Your task to perform on an android device: Open calendar and show me the second week of next month Image 0: 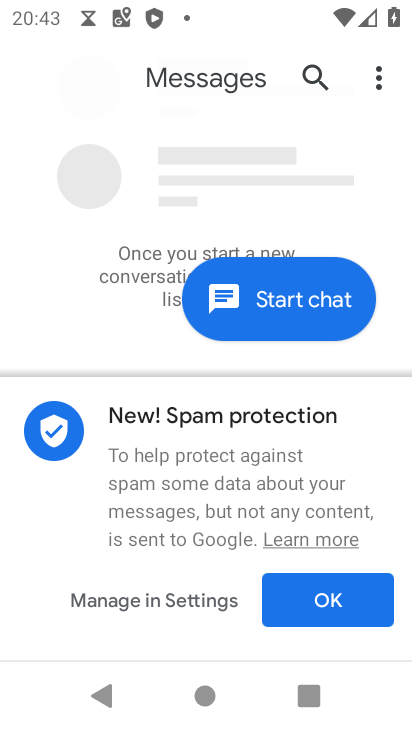
Step 0: press home button
Your task to perform on an android device: Open calendar and show me the second week of next month Image 1: 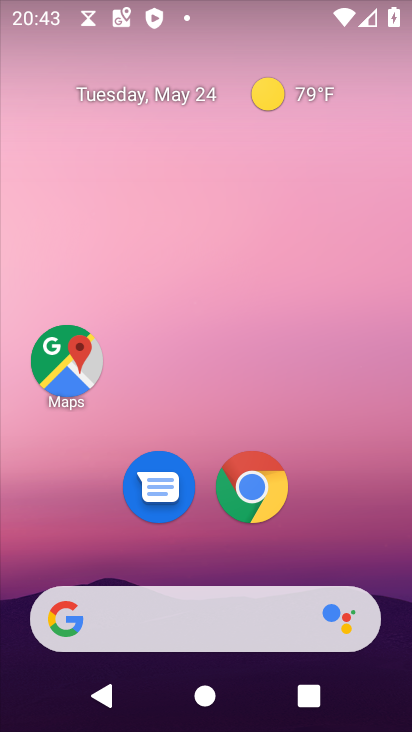
Step 1: drag from (59, 464) to (241, 133)
Your task to perform on an android device: Open calendar and show me the second week of next month Image 2: 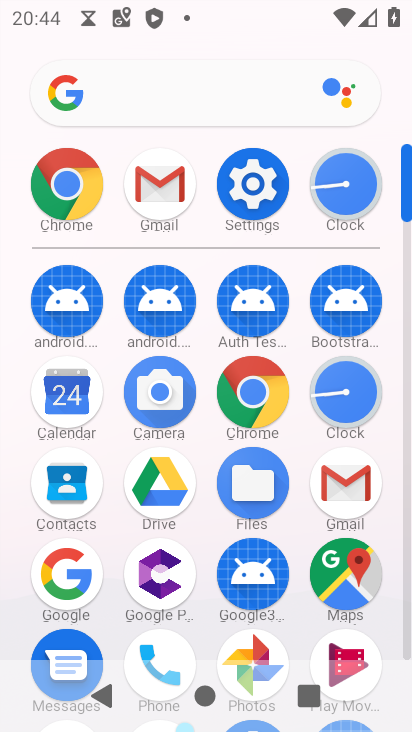
Step 2: click (56, 399)
Your task to perform on an android device: Open calendar and show me the second week of next month Image 3: 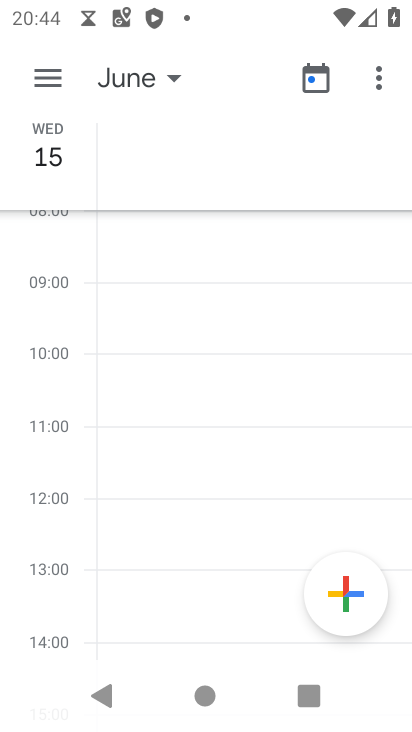
Step 3: click (114, 85)
Your task to perform on an android device: Open calendar and show me the second week of next month Image 4: 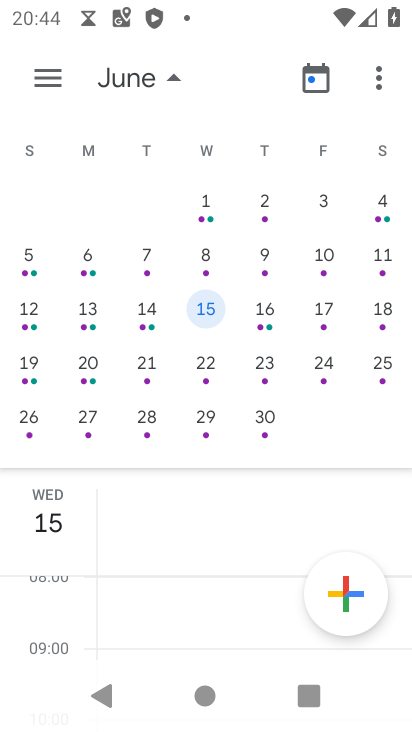
Step 4: click (92, 263)
Your task to perform on an android device: Open calendar and show me the second week of next month Image 5: 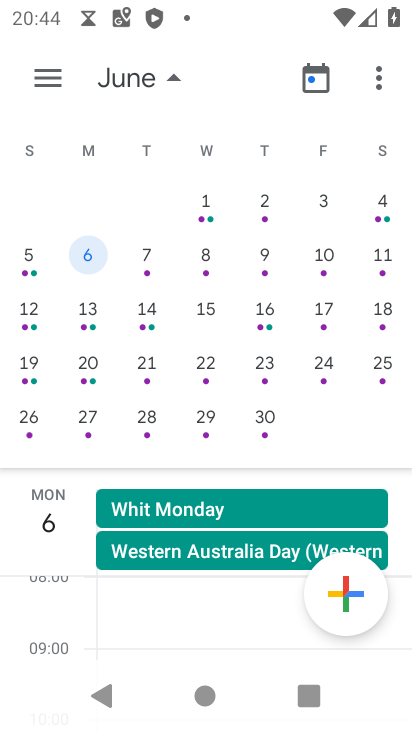
Step 5: click (142, 257)
Your task to perform on an android device: Open calendar and show me the second week of next month Image 6: 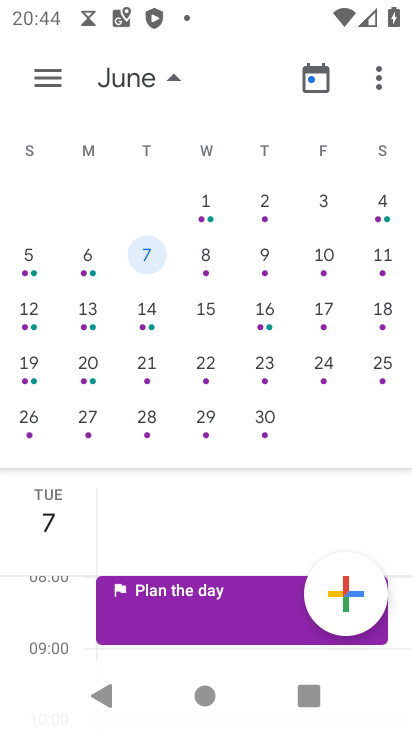
Step 6: click (200, 253)
Your task to perform on an android device: Open calendar and show me the second week of next month Image 7: 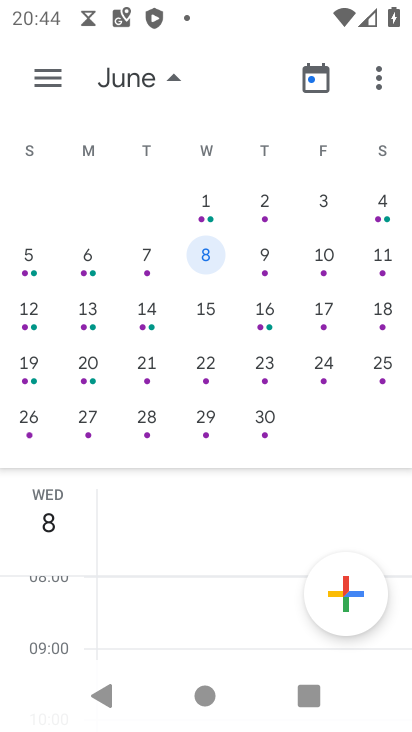
Step 7: click (272, 251)
Your task to perform on an android device: Open calendar and show me the second week of next month Image 8: 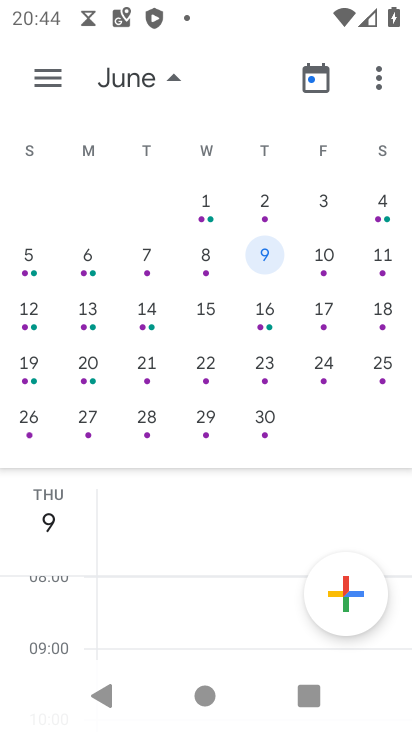
Step 8: task complete